Your task to perform on an android device: turn notification dots off Image 0: 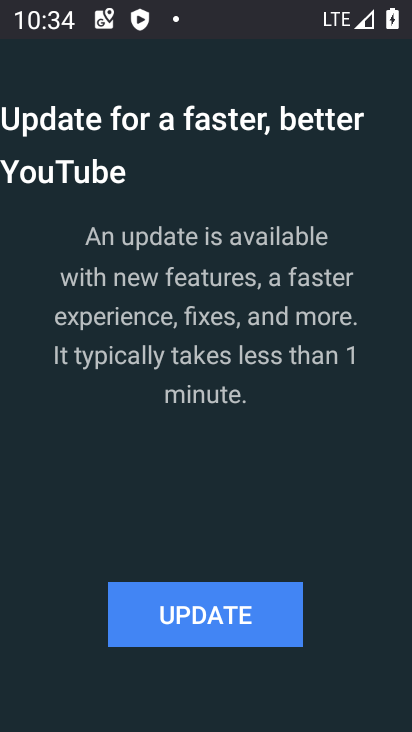
Step 0: press home button
Your task to perform on an android device: turn notification dots off Image 1: 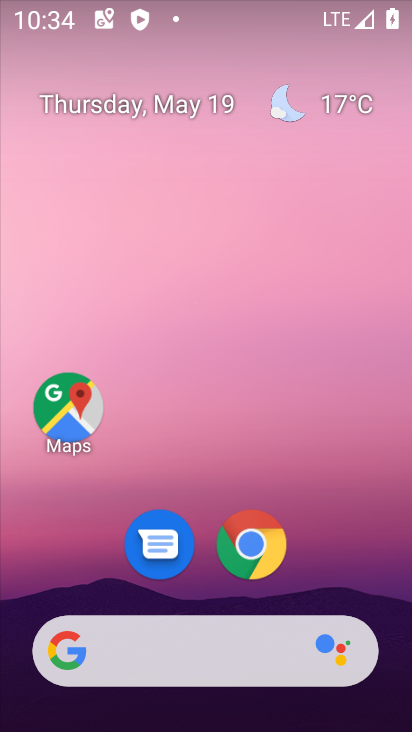
Step 1: drag from (166, 711) to (274, 7)
Your task to perform on an android device: turn notification dots off Image 2: 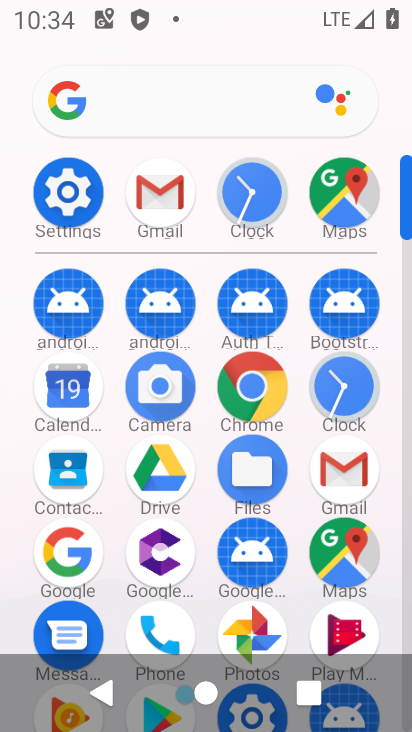
Step 2: click (53, 194)
Your task to perform on an android device: turn notification dots off Image 3: 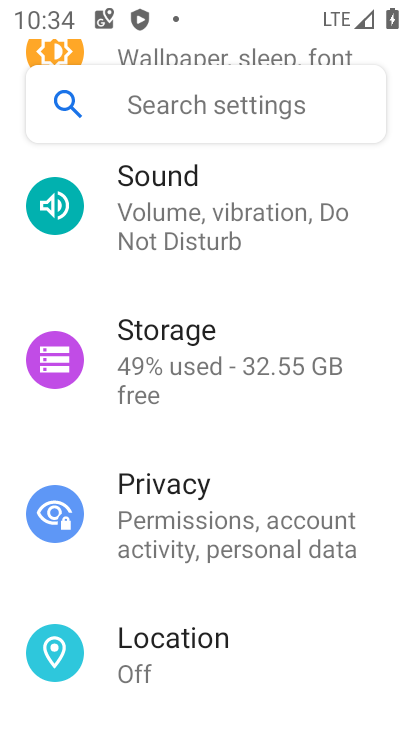
Step 3: drag from (235, 589) to (275, 76)
Your task to perform on an android device: turn notification dots off Image 4: 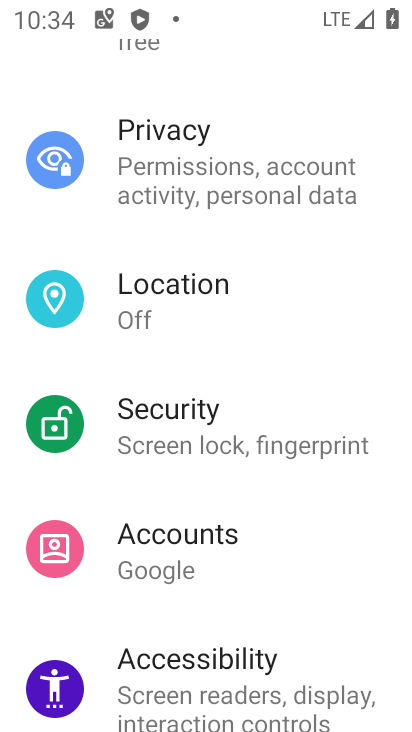
Step 4: drag from (284, 246) to (62, 729)
Your task to perform on an android device: turn notification dots off Image 5: 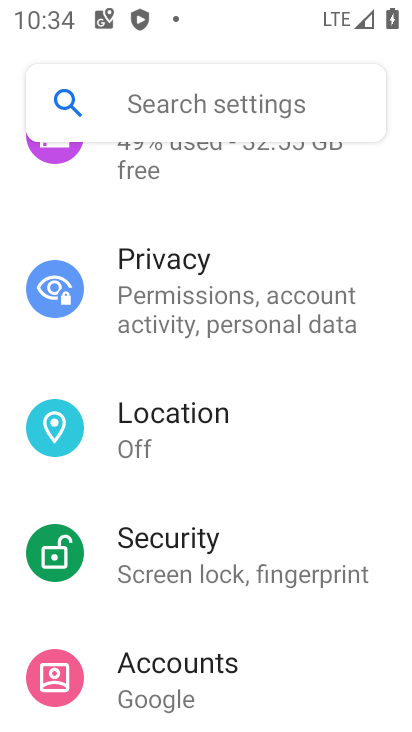
Step 5: drag from (255, 321) to (198, 660)
Your task to perform on an android device: turn notification dots off Image 6: 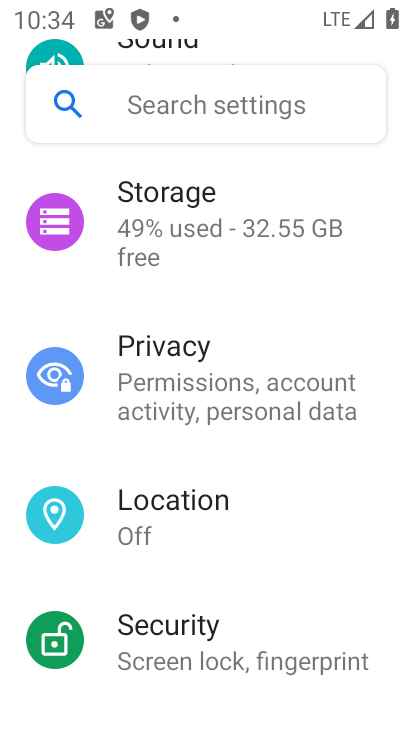
Step 6: drag from (333, 240) to (240, 728)
Your task to perform on an android device: turn notification dots off Image 7: 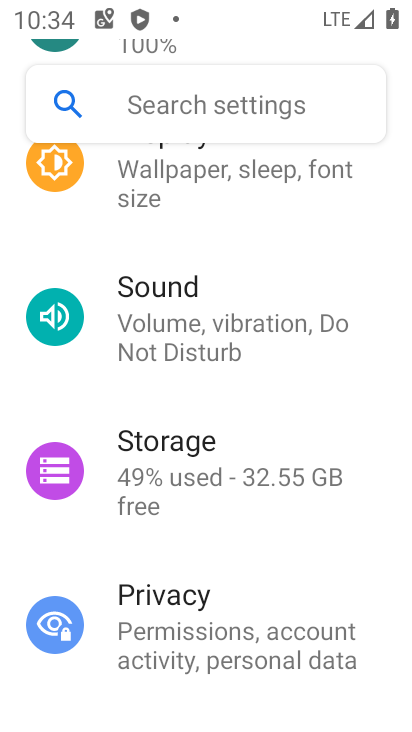
Step 7: drag from (268, 177) to (206, 642)
Your task to perform on an android device: turn notification dots off Image 8: 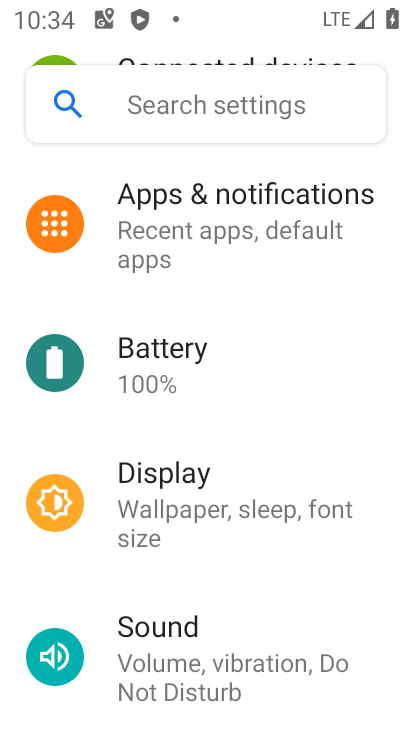
Step 8: click (264, 191)
Your task to perform on an android device: turn notification dots off Image 9: 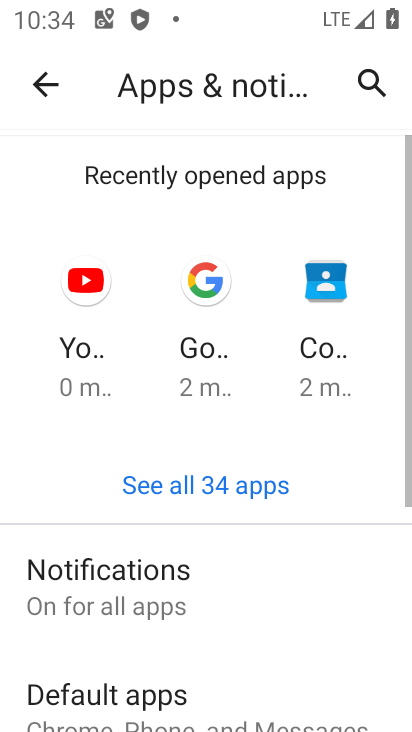
Step 9: click (204, 605)
Your task to perform on an android device: turn notification dots off Image 10: 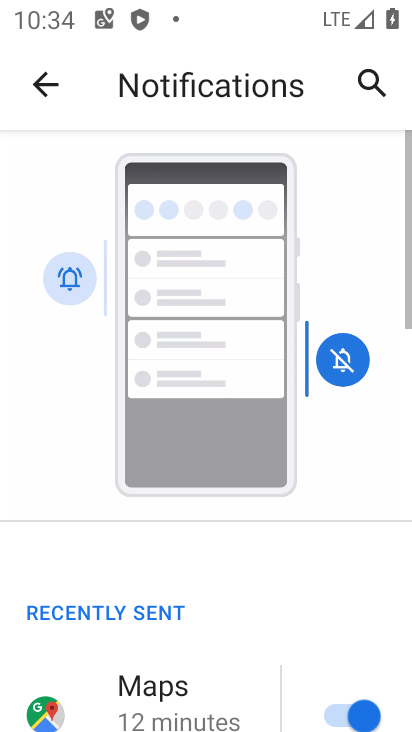
Step 10: drag from (303, 640) to (331, 95)
Your task to perform on an android device: turn notification dots off Image 11: 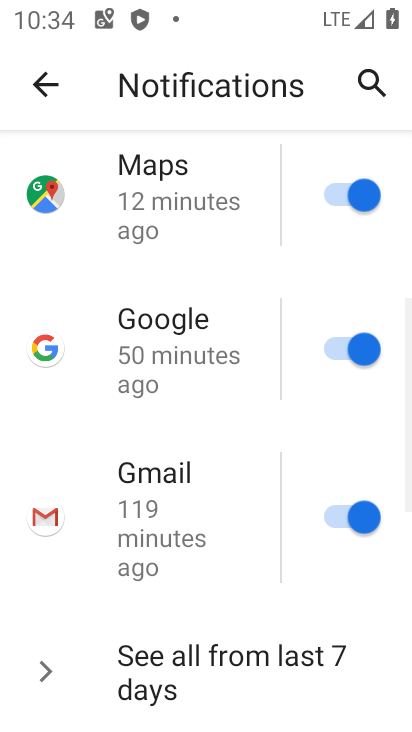
Step 11: drag from (219, 669) to (251, 134)
Your task to perform on an android device: turn notification dots off Image 12: 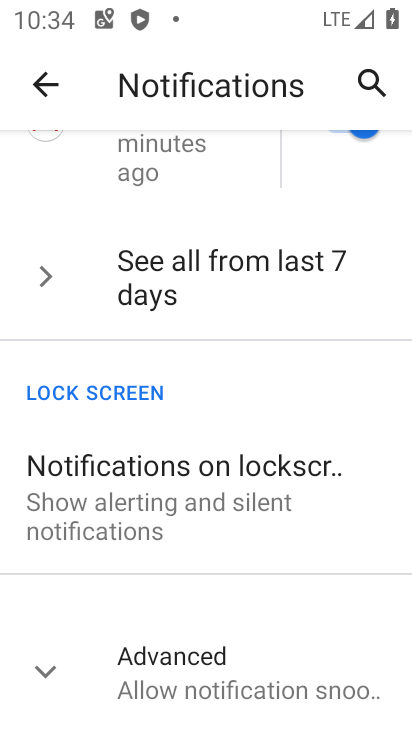
Step 12: click (254, 701)
Your task to perform on an android device: turn notification dots off Image 13: 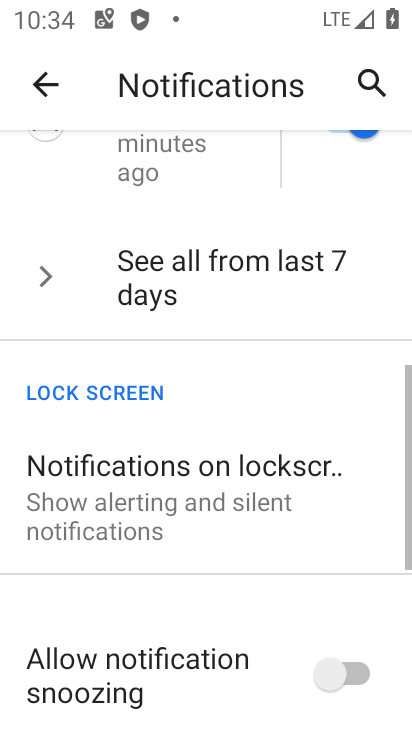
Step 13: drag from (274, 680) to (209, 117)
Your task to perform on an android device: turn notification dots off Image 14: 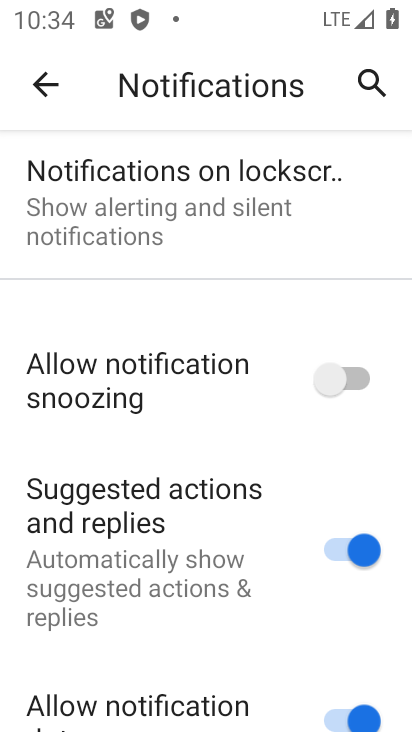
Step 14: drag from (221, 608) to (265, 187)
Your task to perform on an android device: turn notification dots off Image 15: 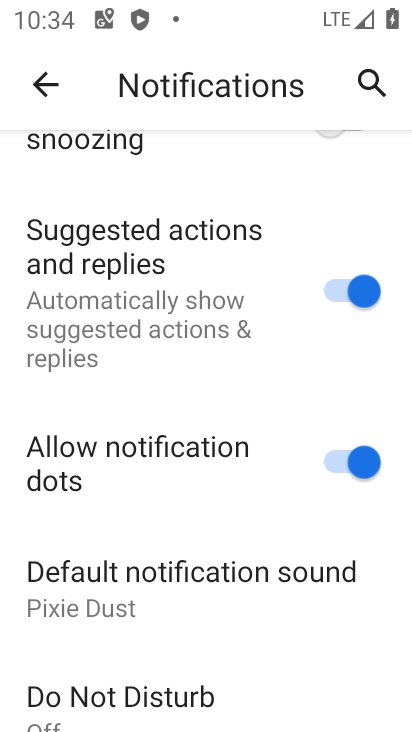
Step 15: click (360, 462)
Your task to perform on an android device: turn notification dots off Image 16: 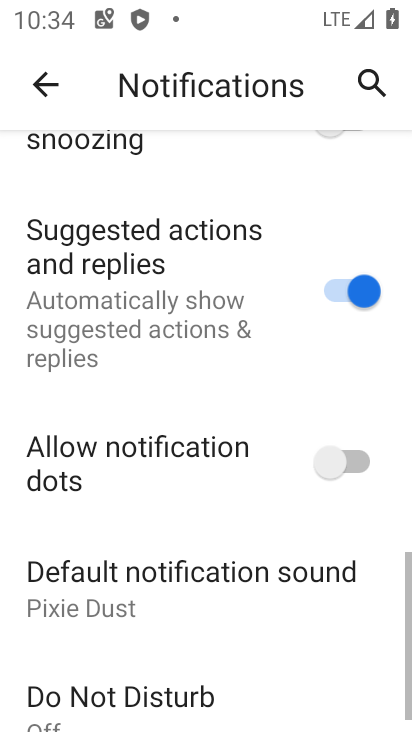
Step 16: task complete